Your task to perform on an android device: turn off location history Image 0: 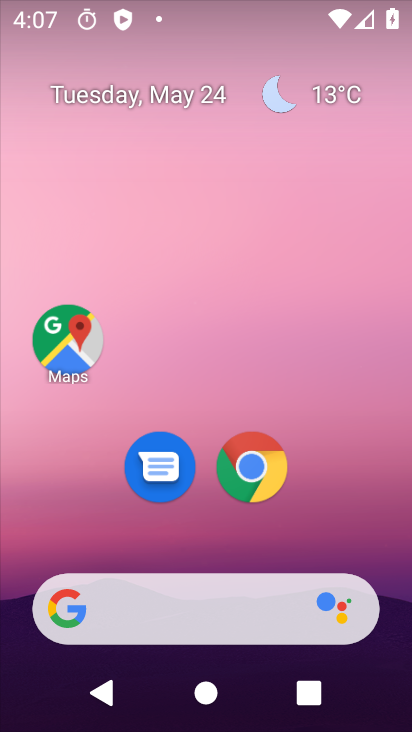
Step 0: drag from (355, 505) to (209, 56)
Your task to perform on an android device: turn off location history Image 1: 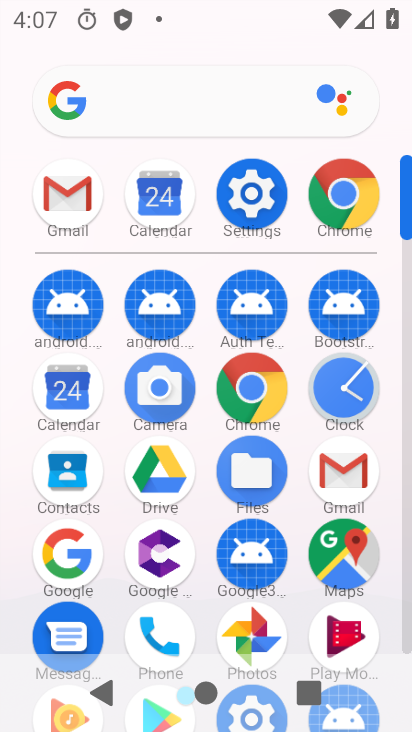
Step 1: click (245, 207)
Your task to perform on an android device: turn off location history Image 2: 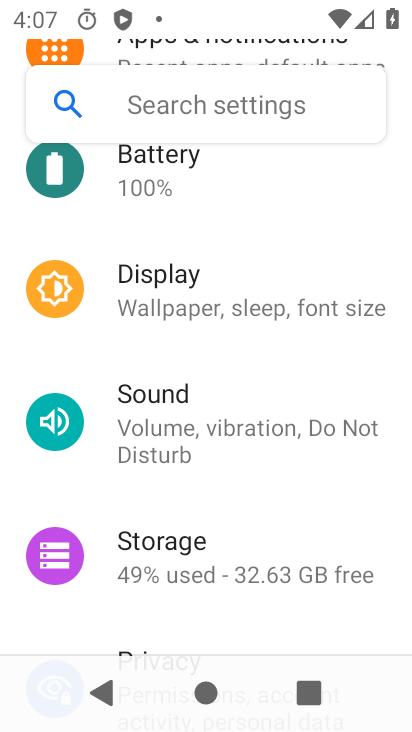
Step 2: drag from (268, 518) to (299, 90)
Your task to perform on an android device: turn off location history Image 3: 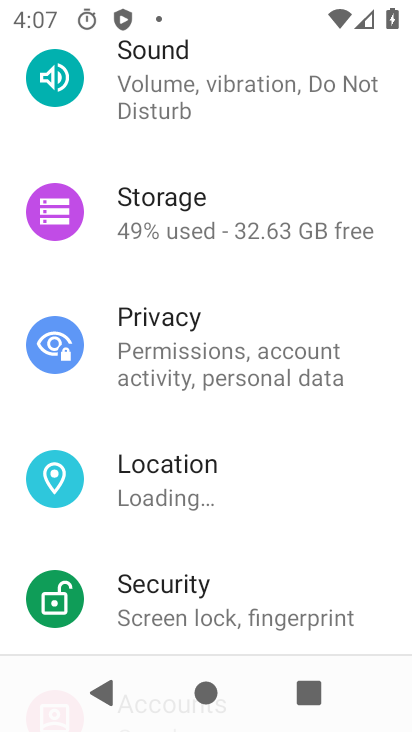
Step 3: click (193, 495)
Your task to perform on an android device: turn off location history Image 4: 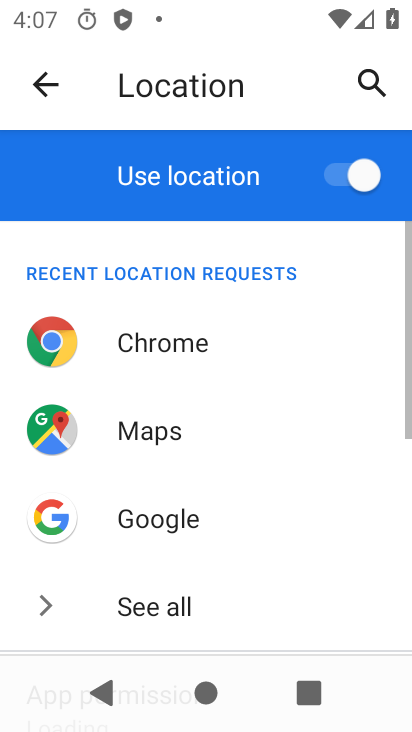
Step 4: drag from (223, 515) to (258, 112)
Your task to perform on an android device: turn off location history Image 5: 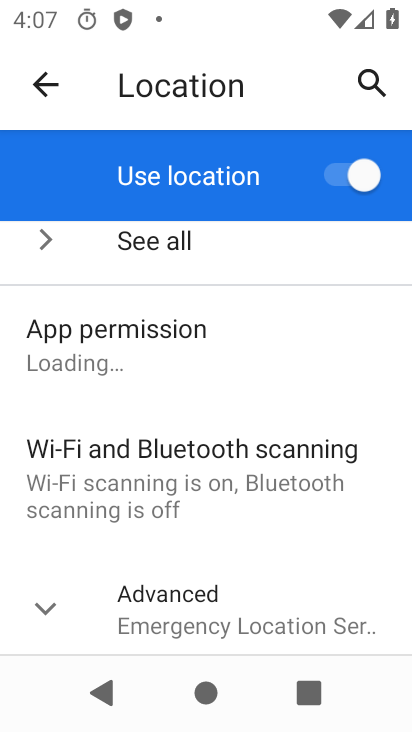
Step 5: click (182, 599)
Your task to perform on an android device: turn off location history Image 6: 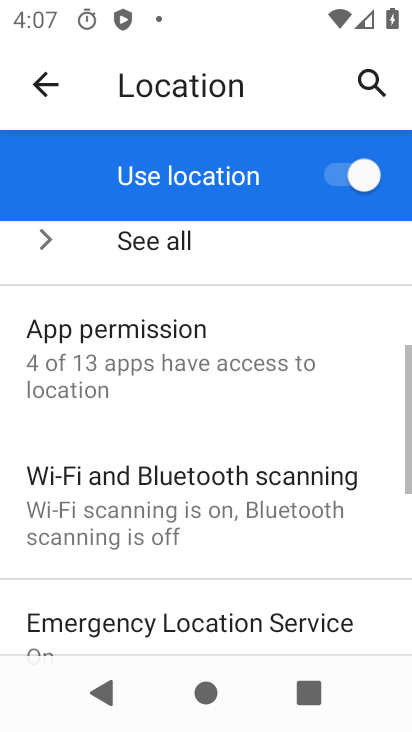
Step 6: drag from (217, 602) to (220, 213)
Your task to perform on an android device: turn off location history Image 7: 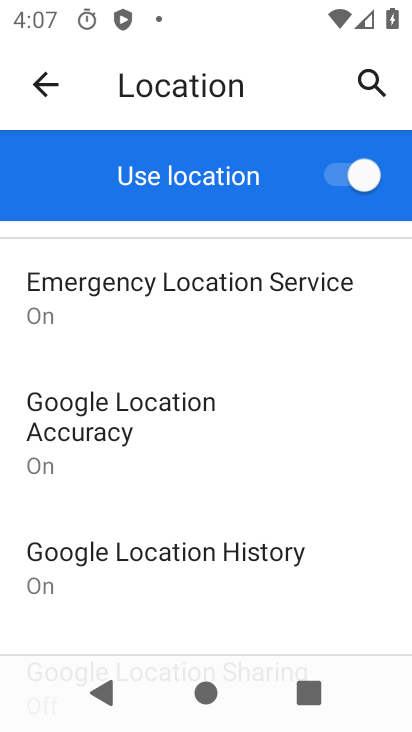
Step 7: click (214, 553)
Your task to perform on an android device: turn off location history Image 8: 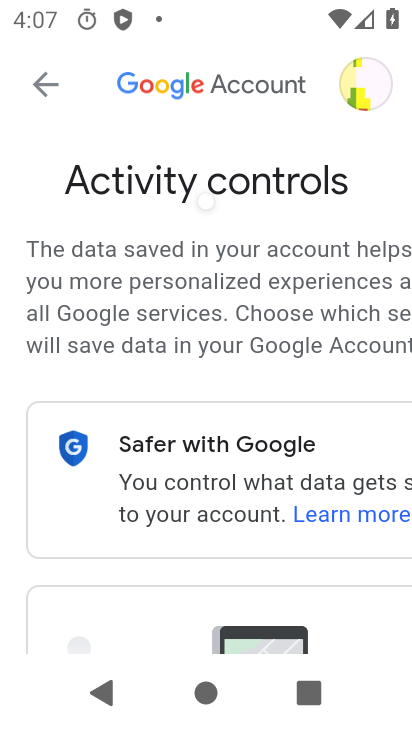
Step 8: drag from (218, 513) to (252, 145)
Your task to perform on an android device: turn off location history Image 9: 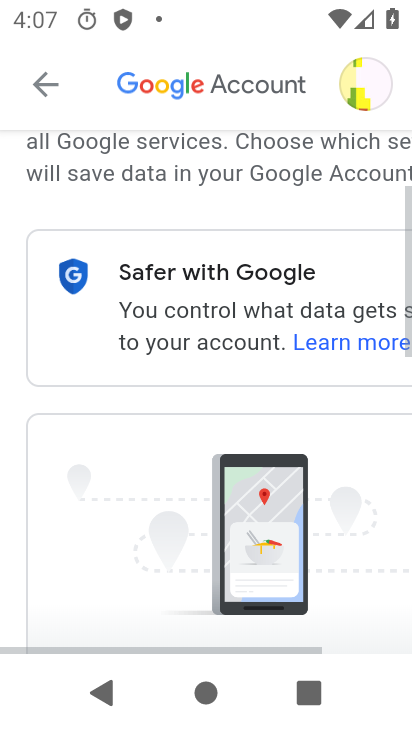
Step 9: drag from (214, 458) to (275, 109)
Your task to perform on an android device: turn off location history Image 10: 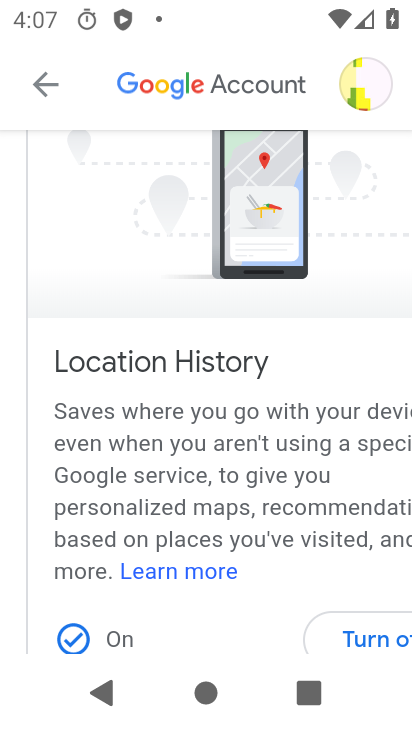
Step 10: drag from (357, 601) to (334, 297)
Your task to perform on an android device: turn off location history Image 11: 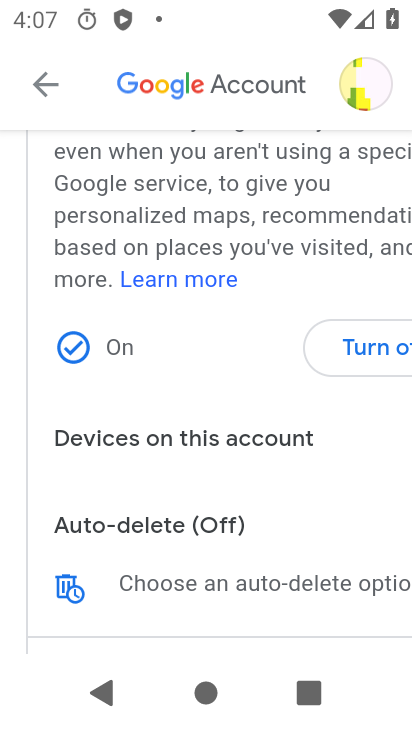
Step 11: click (382, 345)
Your task to perform on an android device: turn off location history Image 12: 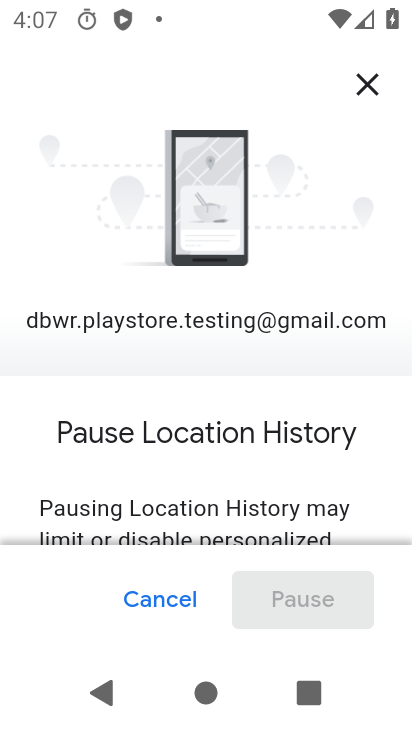
Step 12: drag from (289, 522) to (305, 218)
Your task to perform on an android device: turn off location history Image 13: 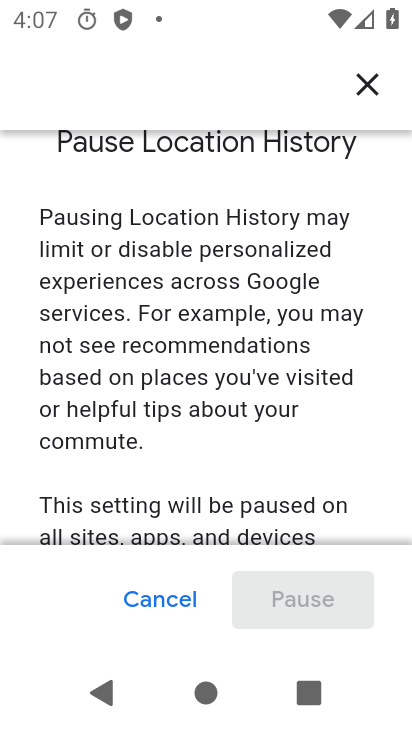
Step 13: drag from (303, 456) to (281, 219)
Your task to perform on an android device: turn off location history Image 14: 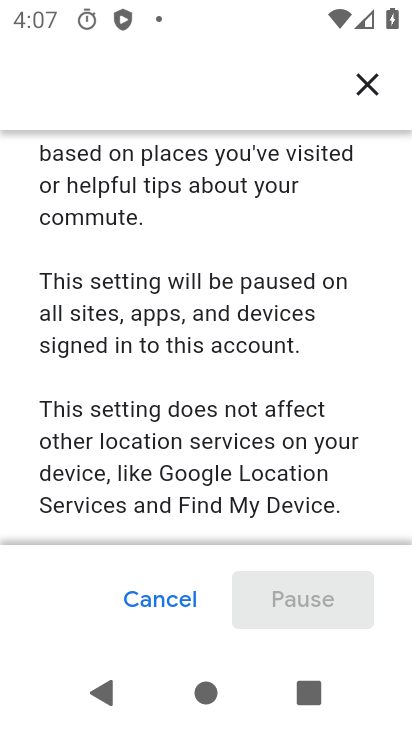
Step 14: drag from (280, 431) to (253, 202)
Your task to perform on an android device: turn off location history Image 15: 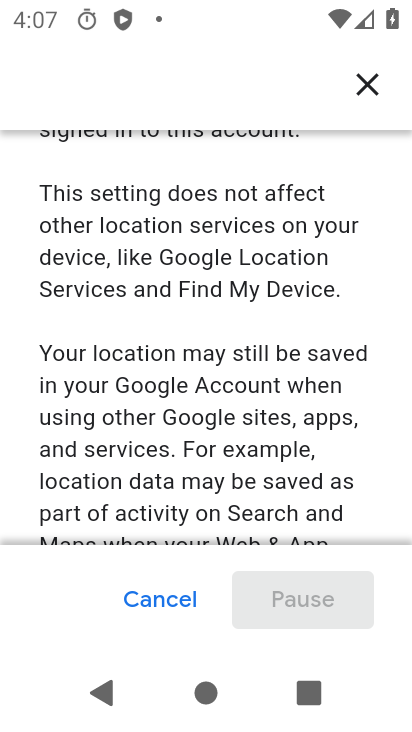
Step 15: drag from (287, 510) to (236, 230)
Your task to perform on an android device: turn off location history Image 16: 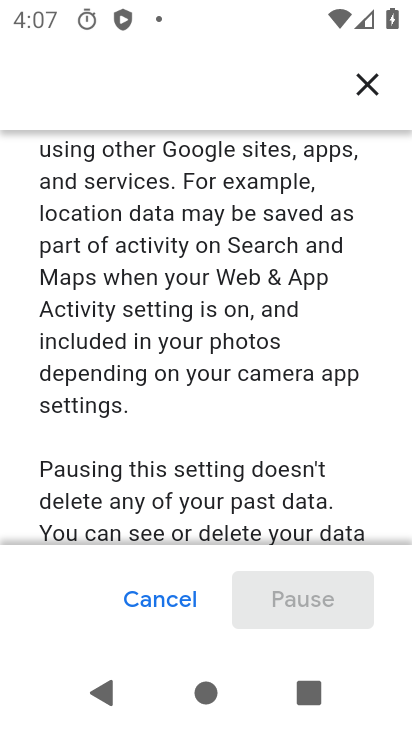
Step 16: drag from (268, 464) to (174, 182)
Your task to perform on an android device: turn off location history Image 17: 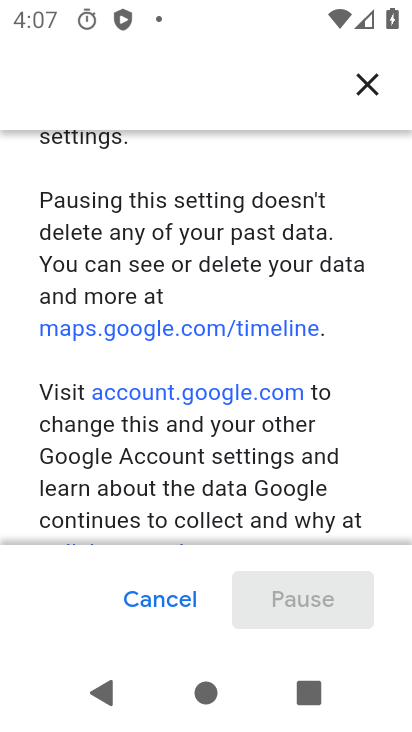
Step 17: drag from (263, 482) to (184, 139)
Your task to perform on an android device: turn off location history Image 18: 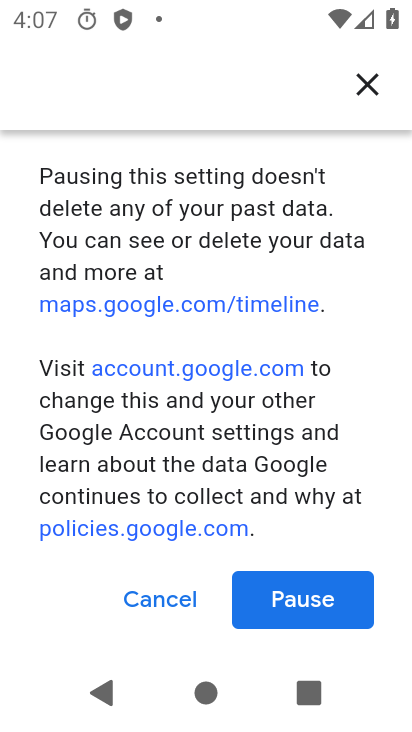
Step 18: click (313, 604)
Your task to perform on an android device: turn off location history Image 19: 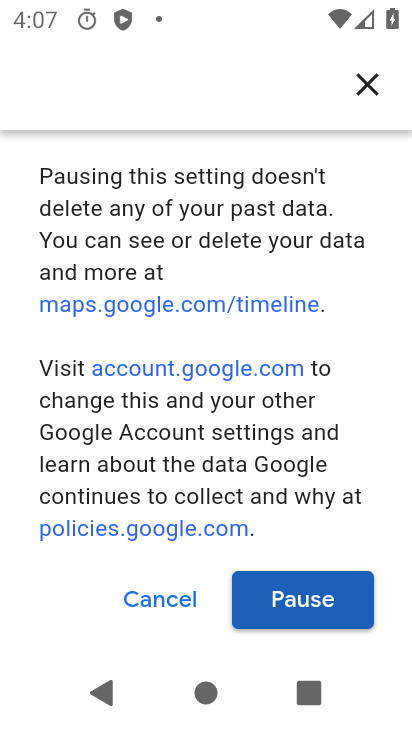
Step 19: click (308, 607)
Your task to perform on an android device: turn off location history Image 20: 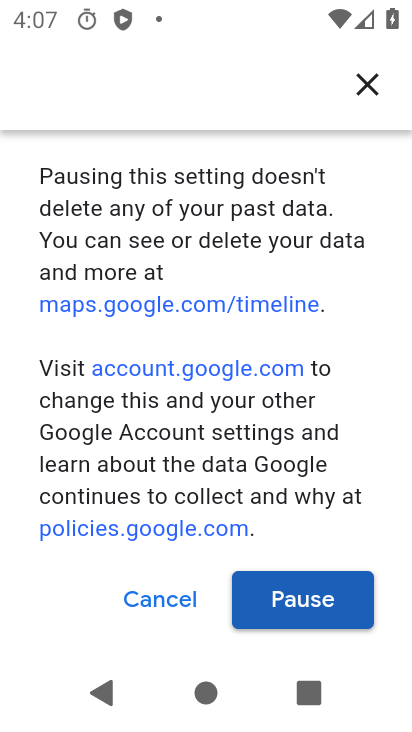
Step 20: click (308, 604)
Your task to perform on an android device: turn off location history Image 21: 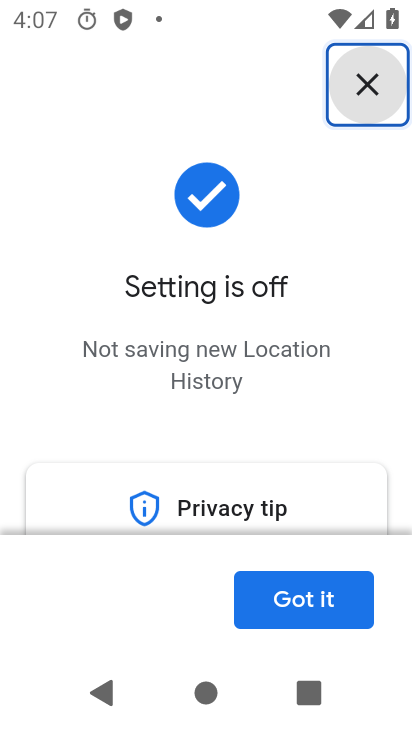
Step 21: task complete